Your task to perform on an android device: Check the news Image 0: 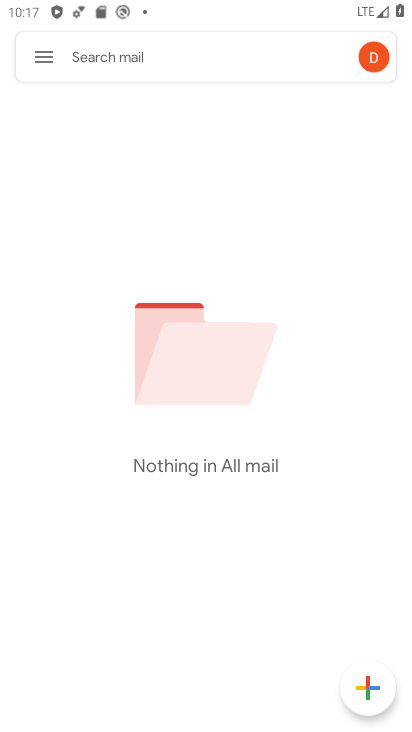
Step 0: press home button
Your task to perform on an android device: Check the news Image 1: 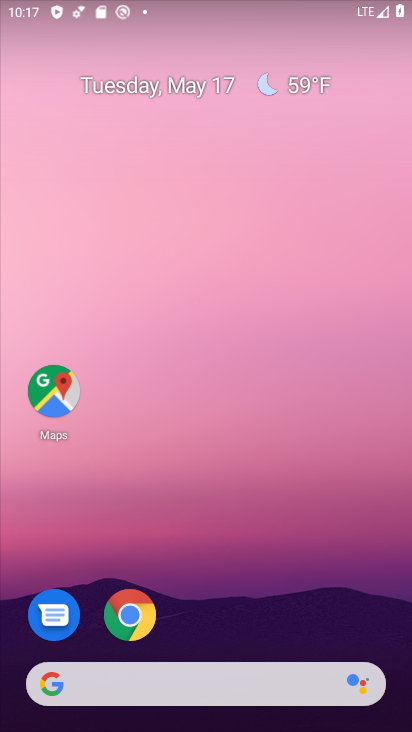
Step 1: click (56, 685)
Your task to perform on an android device: Check the news Image 2: 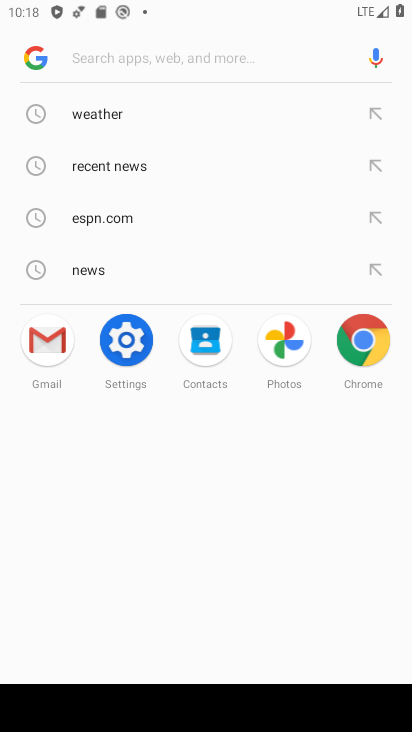
Step 2: click (98, 273)
Your task to perform on an android device: Check the news Image 3: 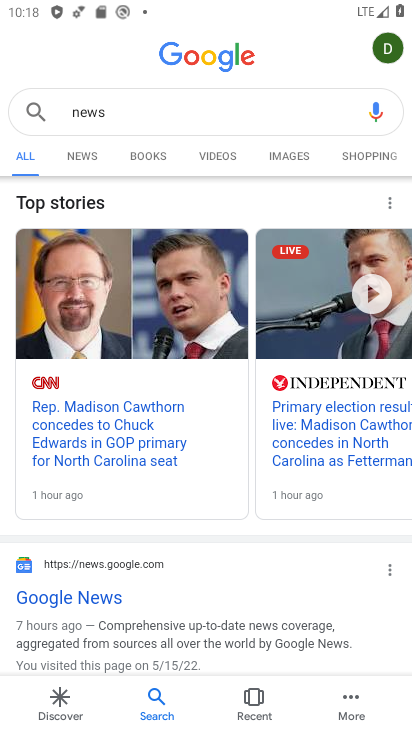
Step 3: click (90, 155)
Your task to perform on an android device: Check the news Image 4: 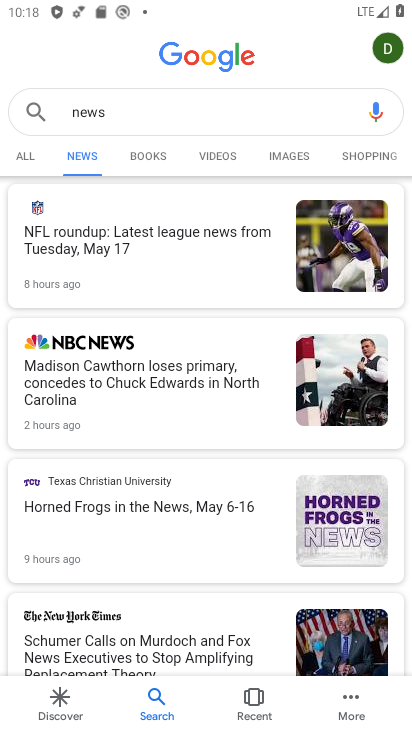
Step 4: task complete